Your task to perform on an android device: allow cookies in the chrome app Image 0: 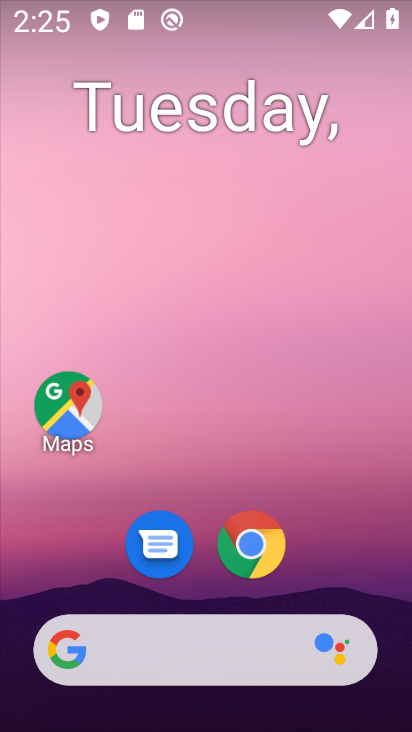
Step 0: drag from (320, 493) to (266, 19)
Your task to perform on an android device: allow cookies in the chrome app Image 1: 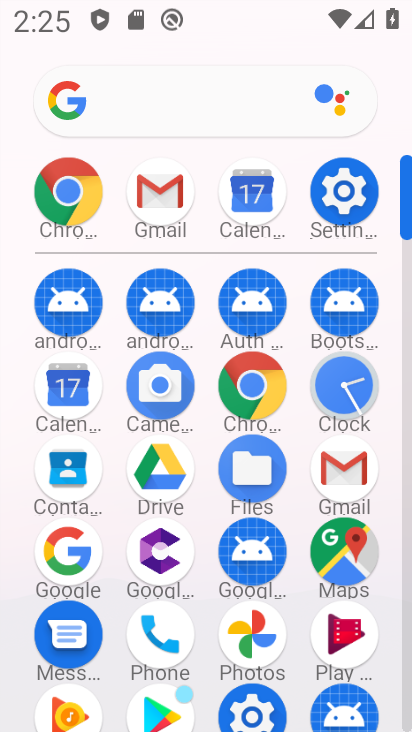
Step 1: drag from (9, 483) to (8, 204)
Your task to perform on an android device: allow cookies in the chrome app Image 2: 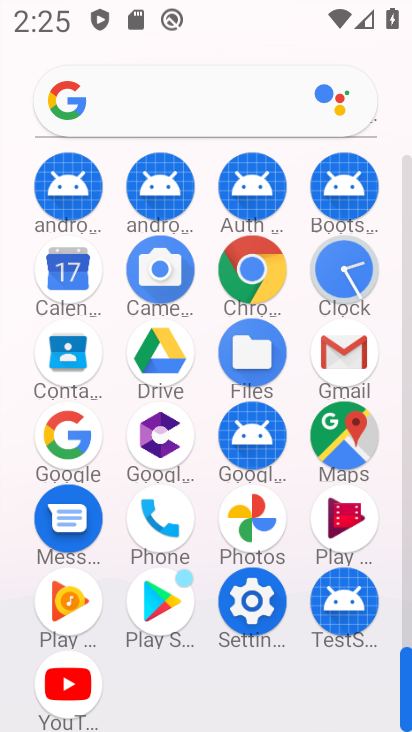
Step 2: click (256, 263)
Your task to perform on an android device: allow cookies in the chrome app Image 3: 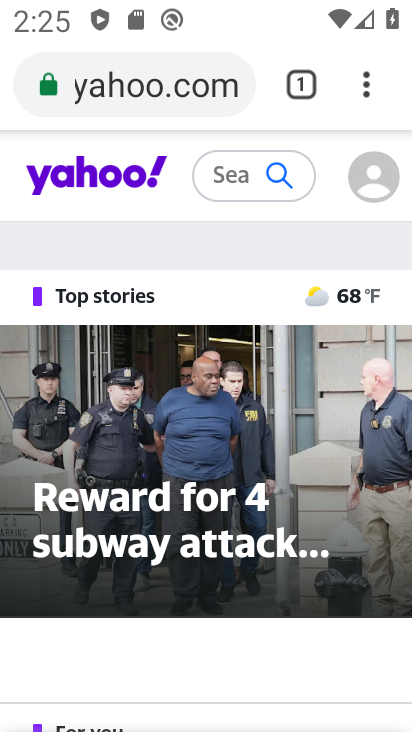
Step 3: drag from (362, 74) to (218, 593)
Your task to perform on an android device: allow cookies in the chrome app Image 4: 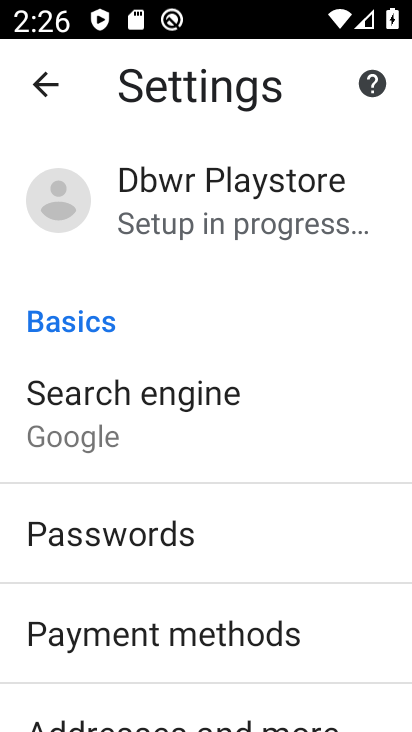
Step 4: drag from (253, 616) to (270, 185)
Your task to perform on an android device: allow cookies in the chrome app Image 5: 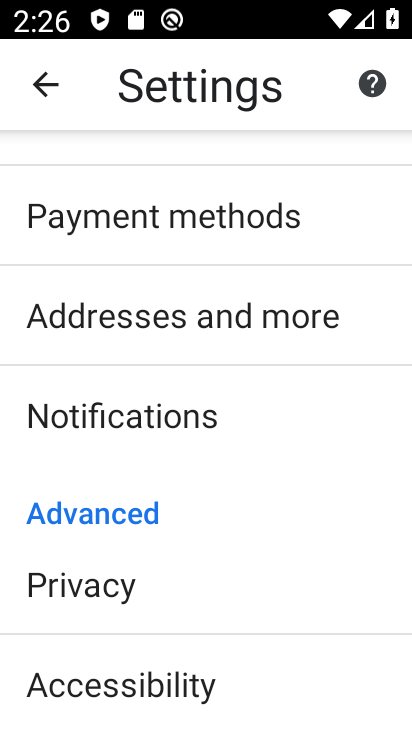
Step 5: drag from (243, 583) to (292, 180)
Your task to perform on an android device: allow cookies in the chrome app Image 6: 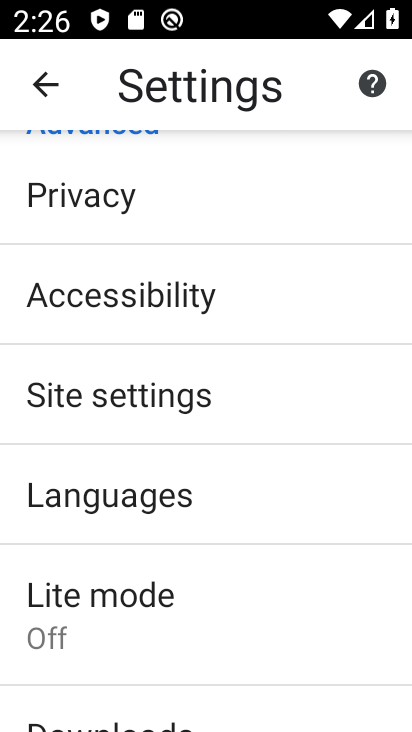
Step 6: click (148, 207)
Your task to perform on an android device: allow cookies in the chrome app Image 7: 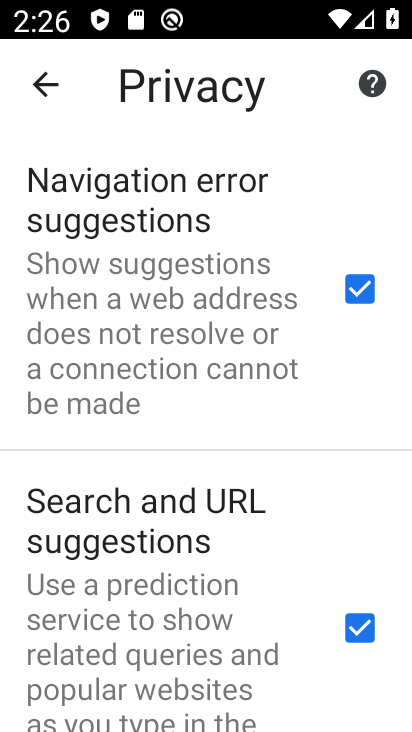
Step 7: drag from (225, 531) to (220, 166)
Your task to perform on an android device: allow cookies in the chrome app Image 8: 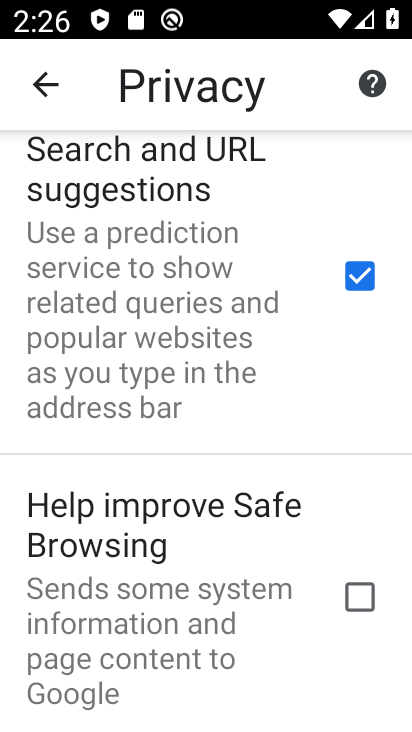
Step 8: drag from (206, 531) to (217, 164)
Your task to perform on an android device: allow cookies in the chrome app Image 9: 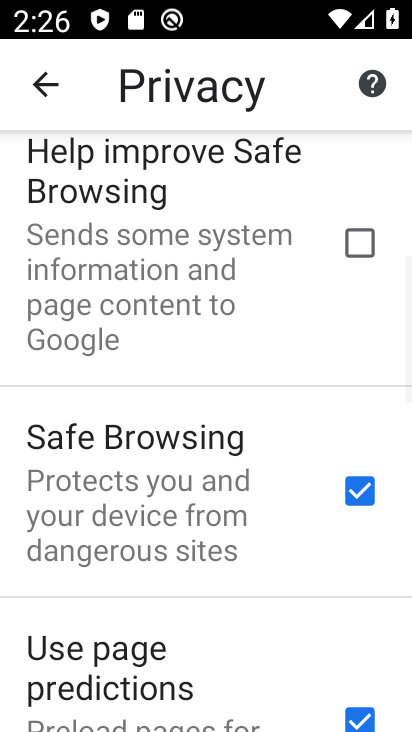
Step 9: drag from (234, 584) to (265, 132)
Your task to perform on an android device: allow cookies in the chrome app Image 10: 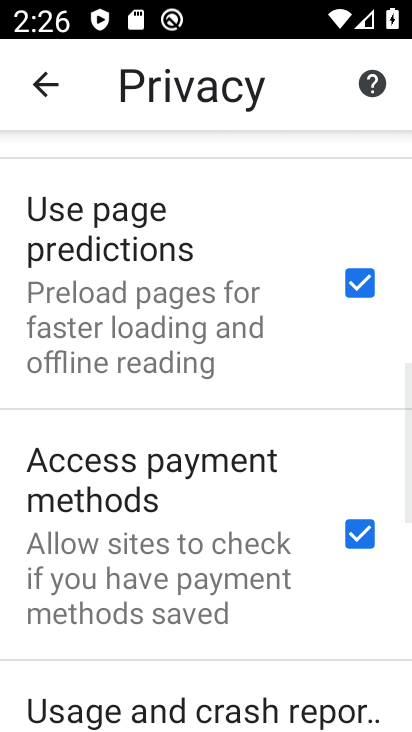
Step 10: drag from (226, 624) to (259, 151)
Your task to perform on an android device: allow cookies in the chrome app Image 11: 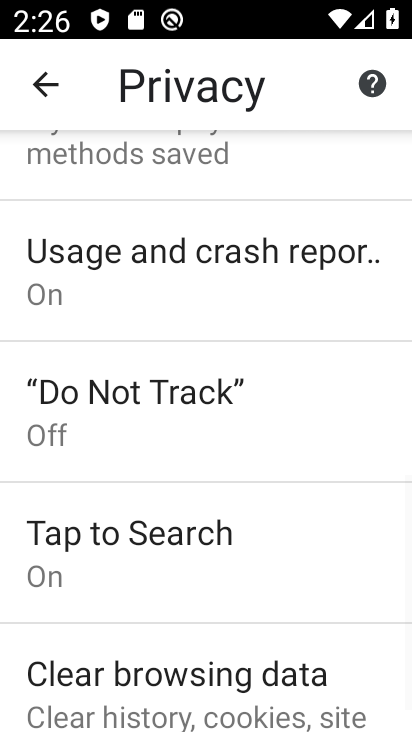
Step 11: drag from (202, 618) to (208, 229)
Your task to perform on an android device: allow cookies in the chrome app Image 12: 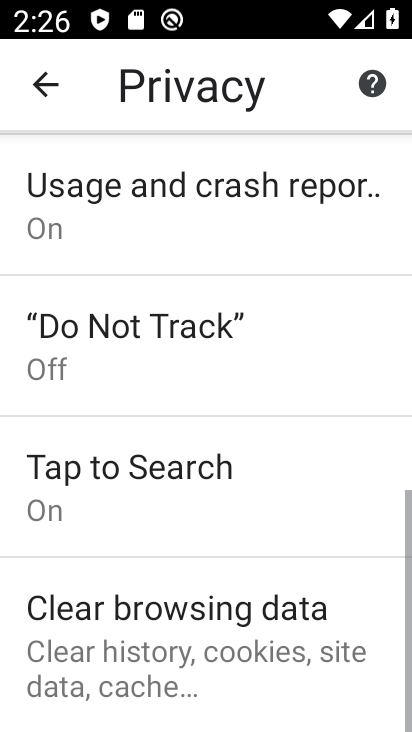
Step 12: click (172, 625)
Your task to perform on an android device: allow cookies in the chrome app Image 13: 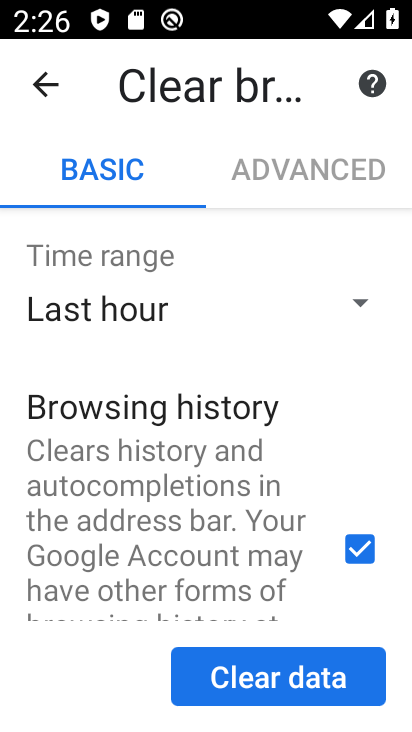
Step 13: drag from (192, 517) to (242, 241)
Your task to perform on an android device: allow cookies in the chrome app Image 14: 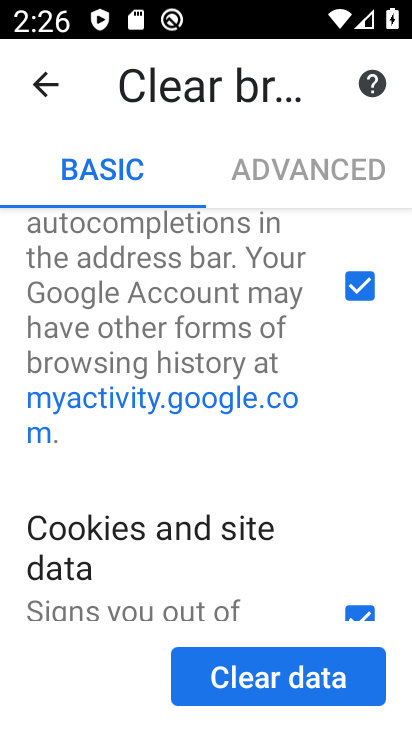
Step 14: drag from (205, 561) to (247, 212)
Your task to perform on an android device: allow cookies in the chrome app Image 15: 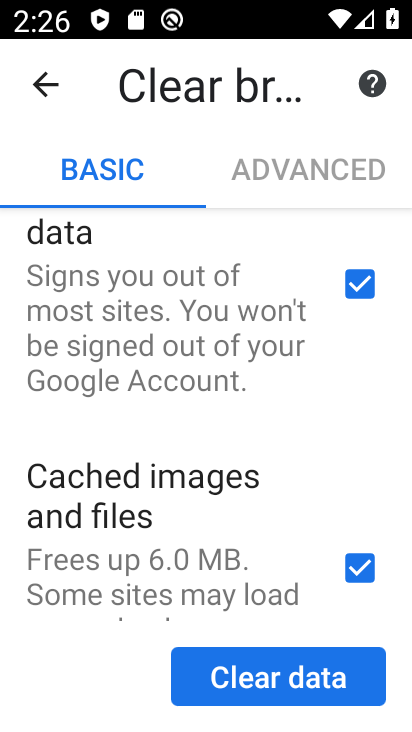
Step 15: click (292, 684)
Your task to perform on an android device: allow cookies in the chrome app Image 16: 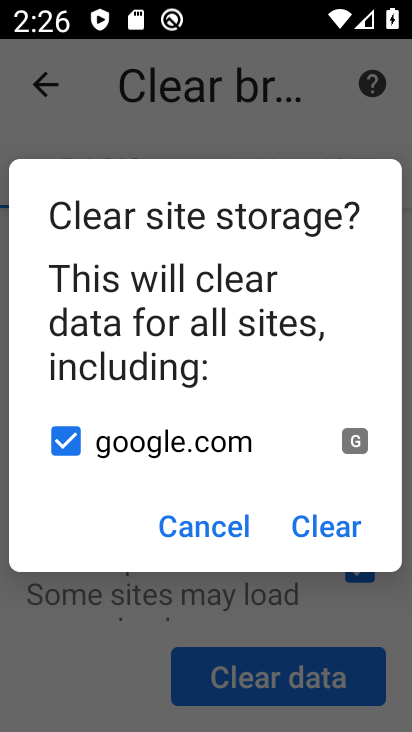
Step 16: click (325, 510)
Your task to perform on an android device: allow cookies in the chrome app Image 17: 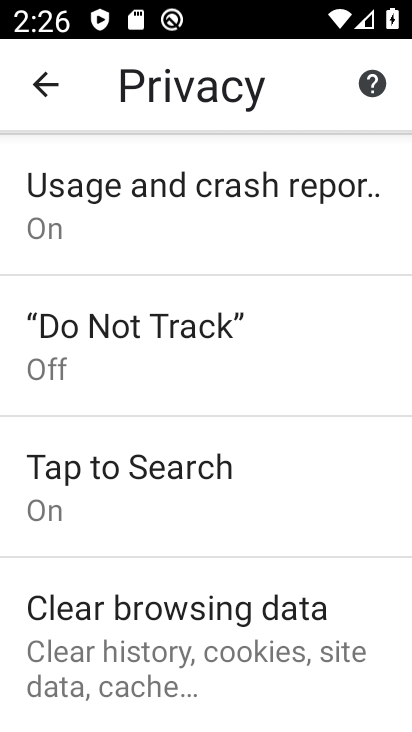
Step 17: task complete